Your task to perform on an android device: turn smart compose on in the gmail app Image 0: 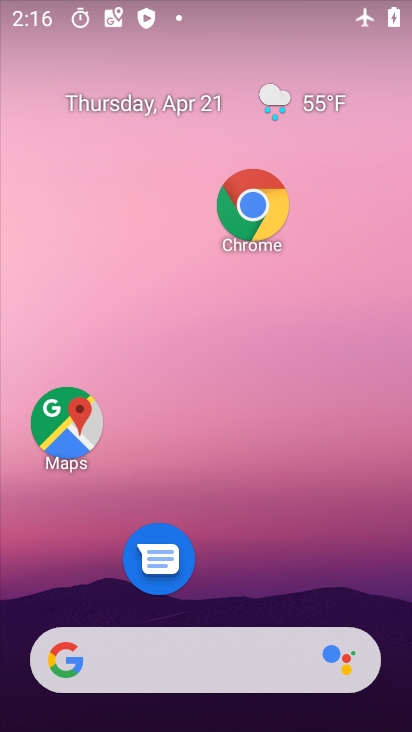
Step 0: drag from (201, 631) to (264, 40)
Your task to perform on an android device: turn smart compose on in the gmail app Image 1: 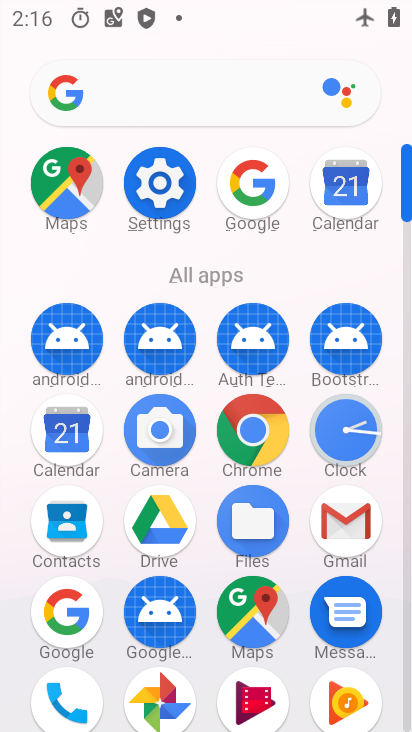
Step 1: click (348, 535)
Your task to perform on an android device: turn smart compose on in the gmail app Image 2: 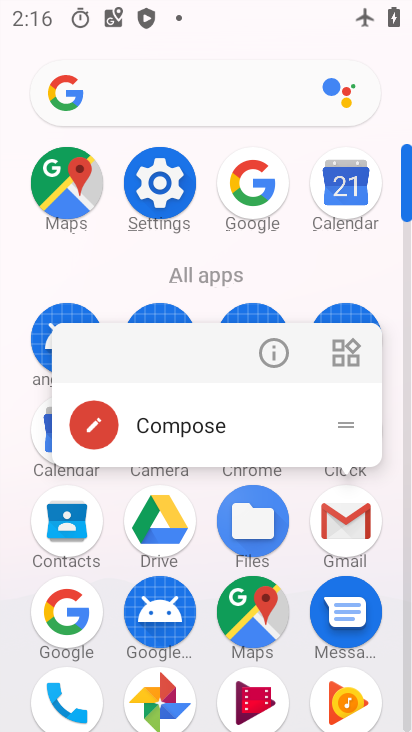
Step 2: click (341, 517)
Your task to perform on an android device: turn smart compose on in the gmail app Image 3: 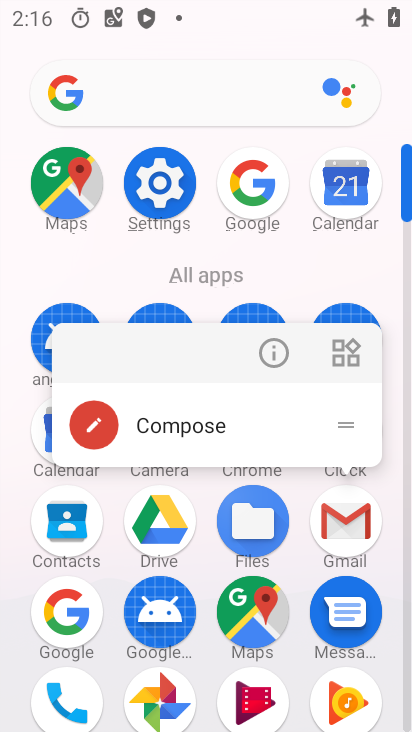
Step 3: click (352, 545)
Your task to perform on an android device: turn smart compose on in the gmail app Image 4: 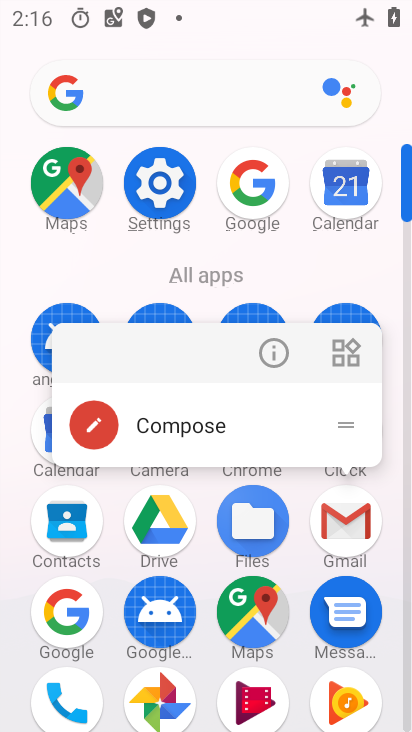
Step 4: click (338, 532)
Your task to perform on an android device: turn smart compose on in the gmail app Image 5: 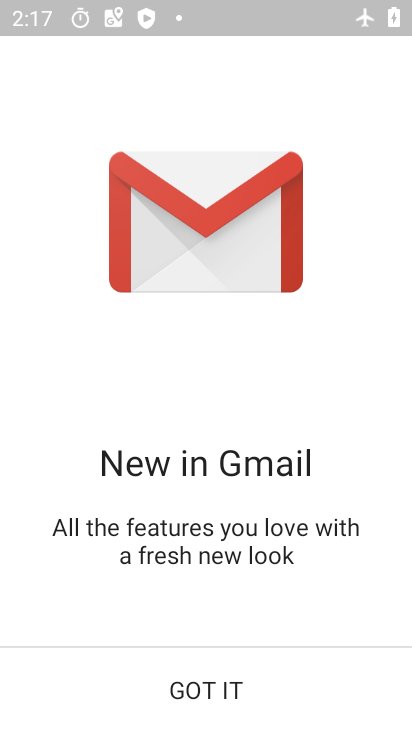
Step 5: click (198, 679)
Your task to perform on an android device: turn smart compose on in the gmail app Image 6: 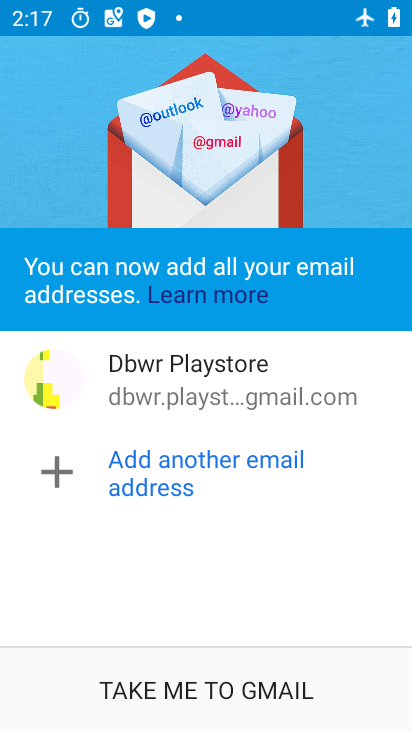
Step 6: click (198, 675)
Your task to perform on an android device: turn smart compose on in the gmail app Image 7: 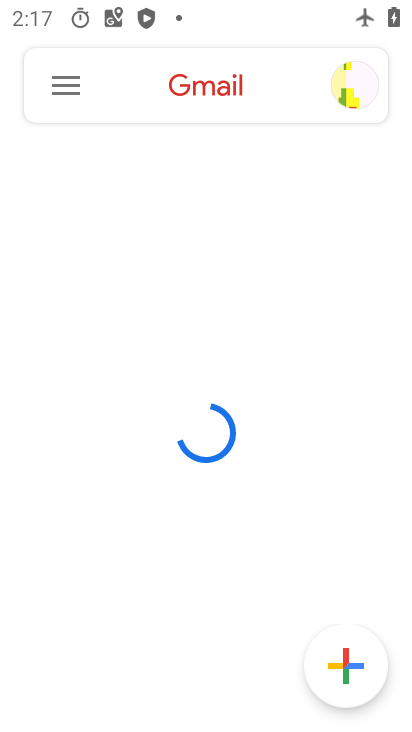
Step 7: click (55, 92)
Your task to perform on an android device: turn smart compose on in the gmail app Image 8: 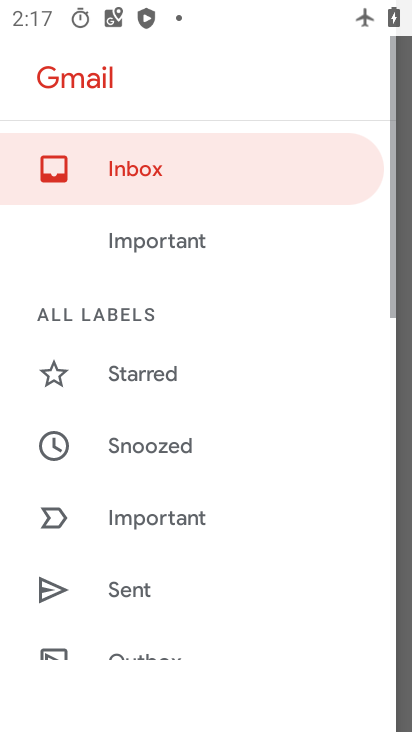
Step 8: drag from (143, 375) to (146, 33)
Your task to perform on an android device: turn smart compose on in the gmail app Image 9: 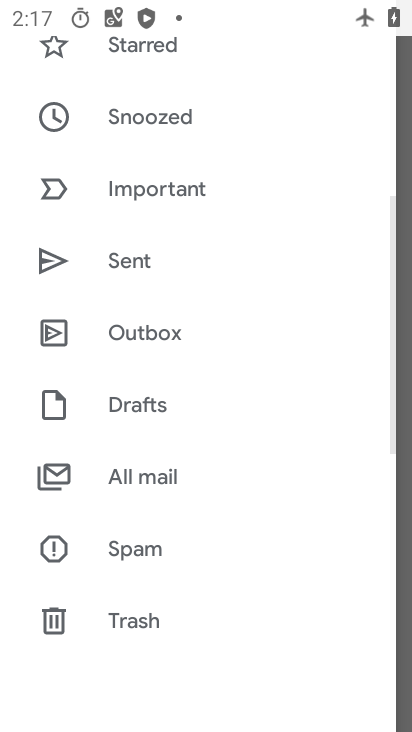
Step 9: drag from (164, 610) to (165, 205)
Your task to perform on an android device: turn smart compose on in the gmail app Image 10: 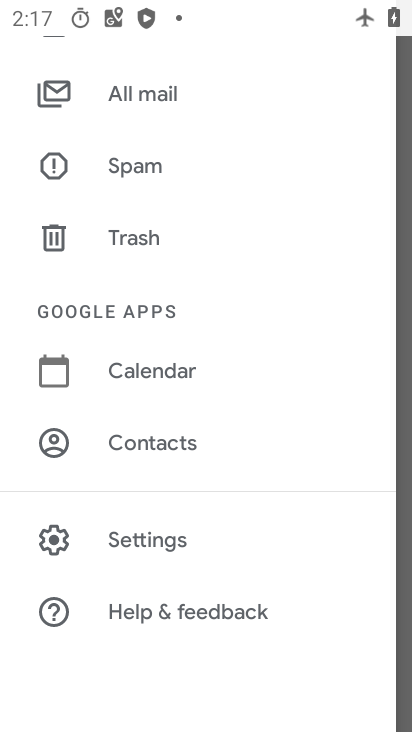
Step 10: click (146, 542)
Your task to perform on an android device: turn smart compose on in the gmail app Image 11: 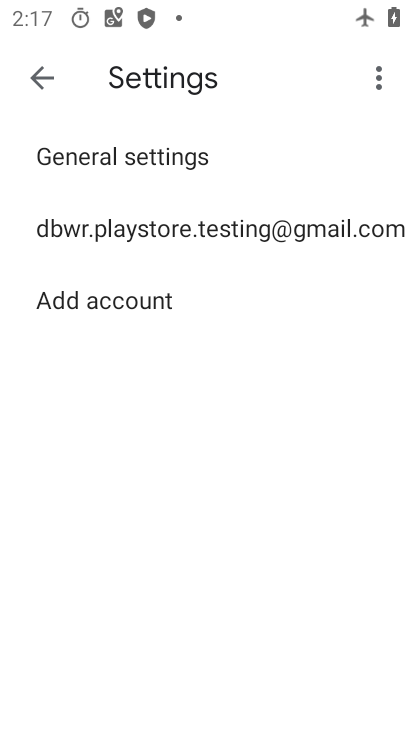
Step 11: click (111, 223)
Your task to perform on an android device: turn smart compose on in the gmail app Image 12: 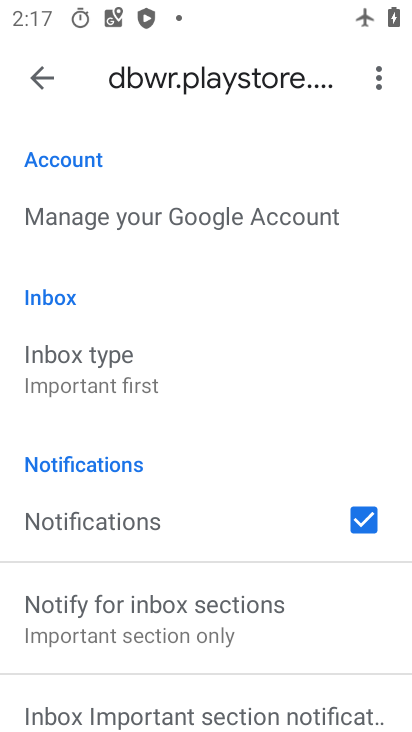
Step 12: task complete